Your task to perform on an android device: toggle data saver in the chrome app Image 0: 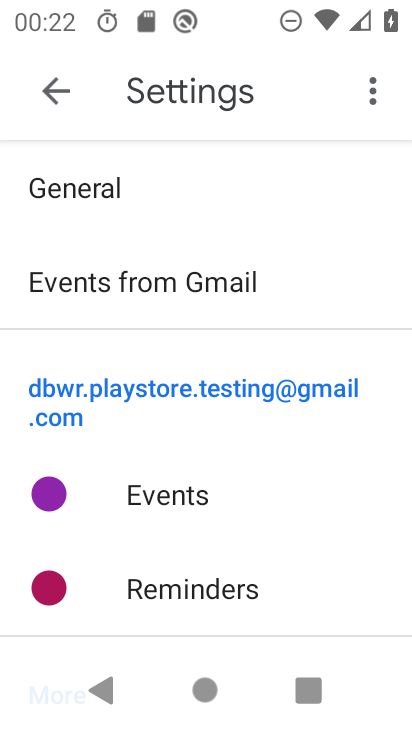
Step 0: press home button
Your task to perform on an android device: toggle data saver in the chrome app Image 1: 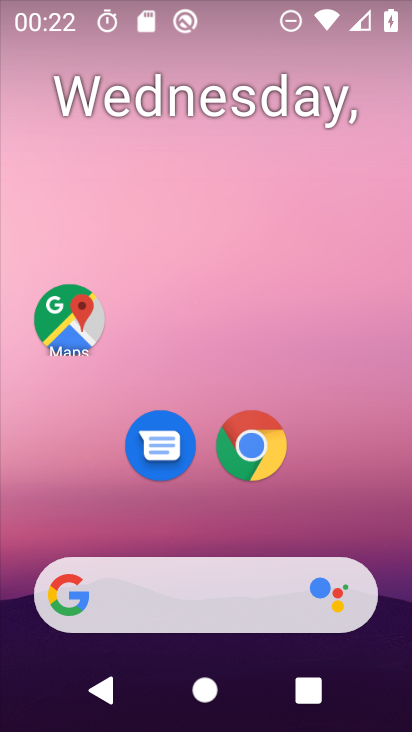
Step 1: click (254, 439)
Your task to perform on an android device: toggle data saver in the chrome app Image 2: 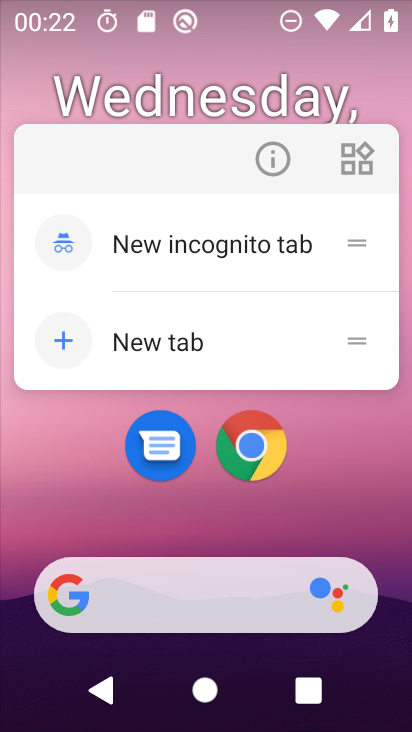
Step 2: click (211, 422)
Your task to perform on an android device: toggle data saver in the chrome app Image 3: 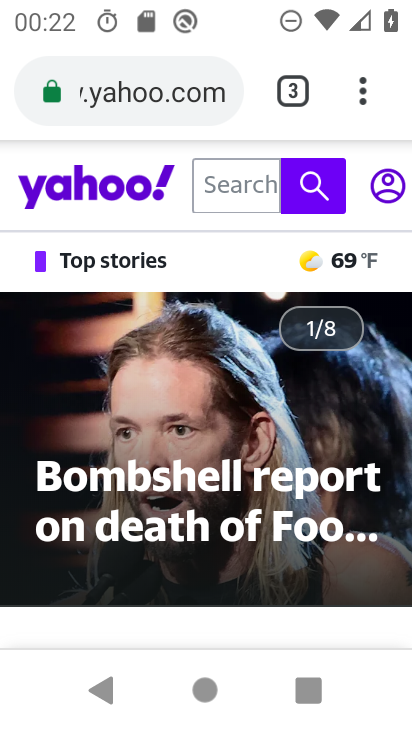
Step 3: click (375, 81)
Your task to perform on an android device: toggle data saver in the chrome app Image 4: 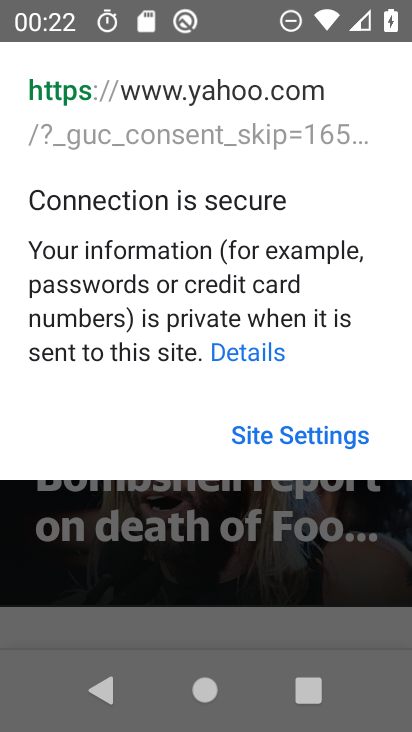
Step 4: press back button
Your task to perform on an android device: toggle data saver in the chrome app Image 5: 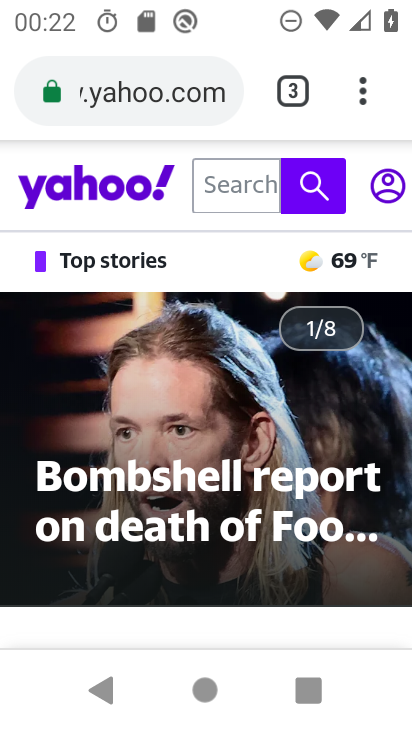
Step 5: click (375, 108)
Your task to perform on an android device: toggle data saver in the chrome app Image 6: 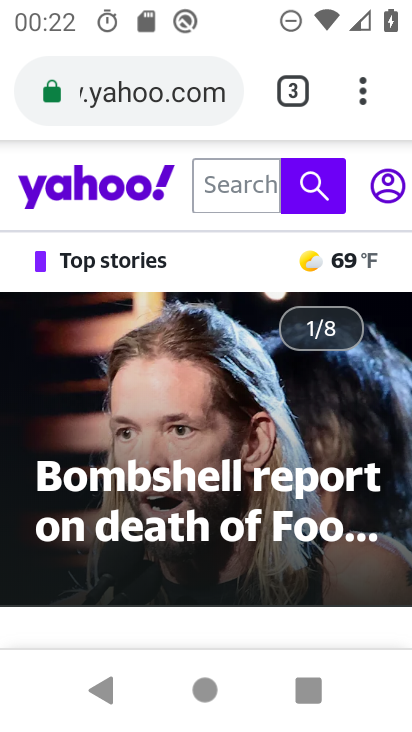
Step 6: click (373, 123)
Your task to perform on an android device: toggle data saver in the chrome app Image 7: 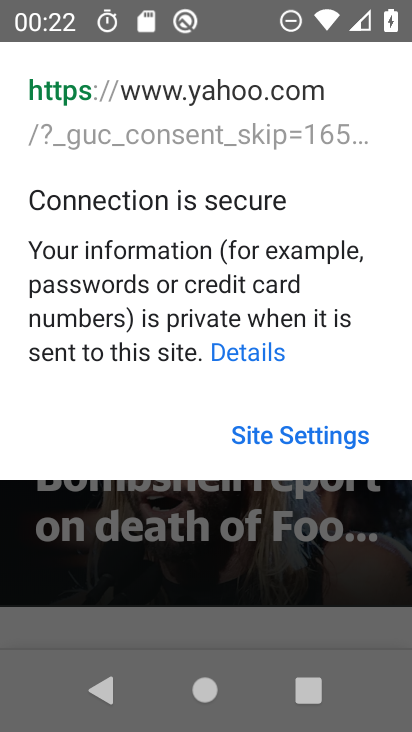
Step 7: press back button
Your task to perform on an android device: toggle data saver in the chrome app Image 8: 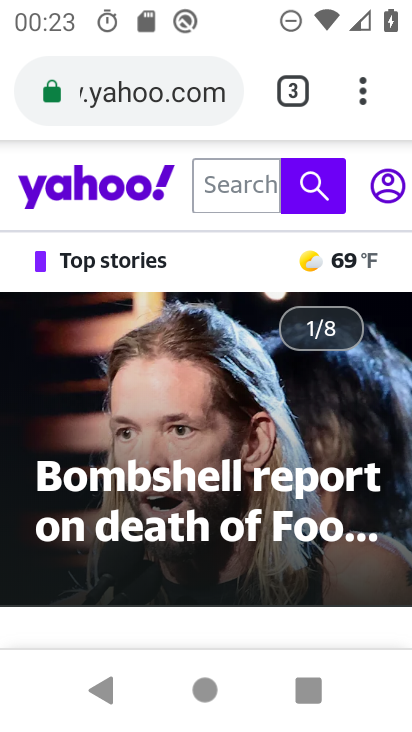
Step 8: click (360, 90)
Your task to perform on an android device: toggle data saver in the chrome app Image 9: 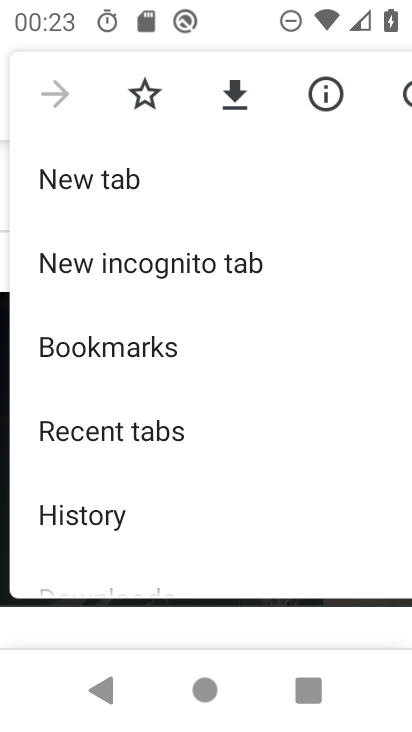
Step 9: drag from (228, 474) to (327, 86)
Your task to perform on an android device: toggle data saver in the chrome app Image 10: 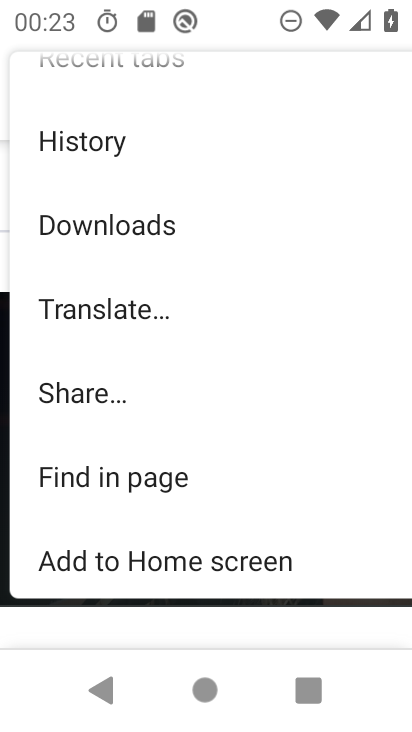
Step 10: drag from (225, 503) to (351, 114)
Your task to perform on an android device: toggle data saver in the chrome app Image 11: 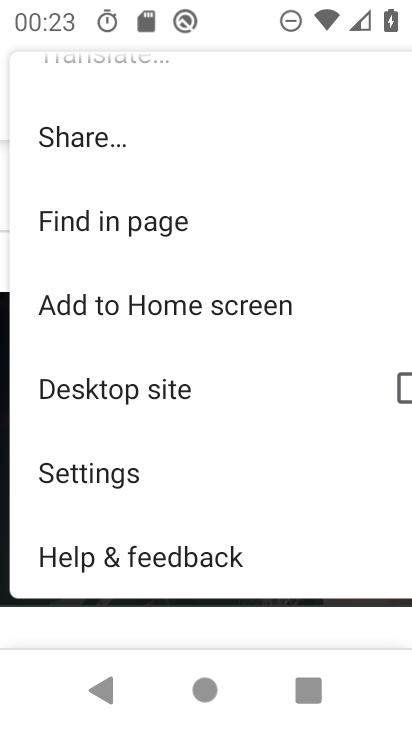
Step 11: click (189, 462)
Your task to perform on an android device: toggle data saver in the chrome app Image 12: 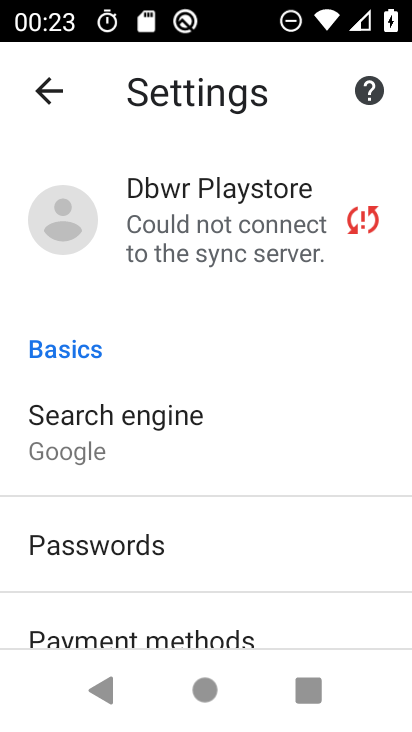
Step 12: drag from (195, 577) to (290, 160)
Your task to perform on an android device: toggle data saver in the chrome app Image 13: 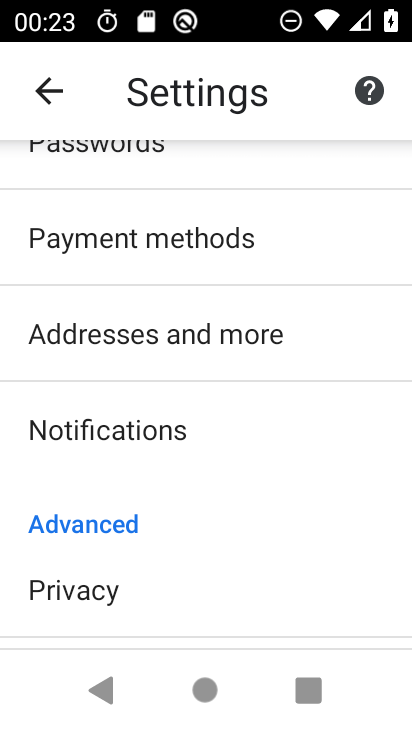
Step 13: drag from (267, 496) to (383, 212)
Your task to perform on an android device: toggle data saver in the chrome app Image 14: 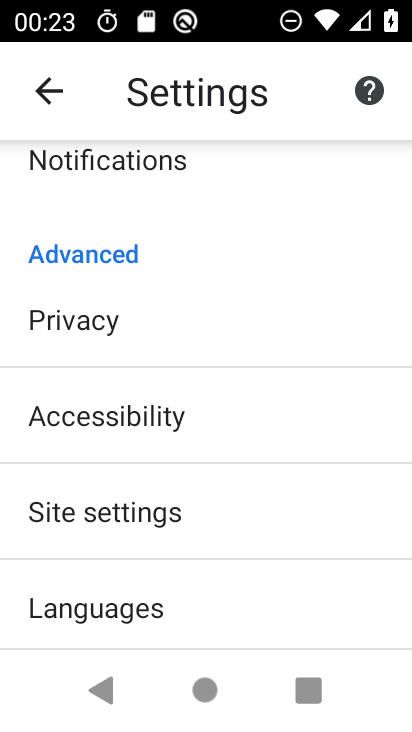
Step 14: drag from (220, 501) to (324, 278)
Your task to perform on an android device: toggle data saver in the chrome app Image 15: 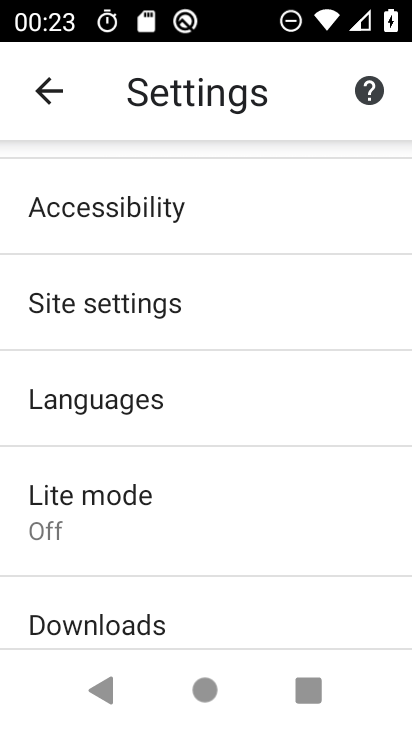
Step 15: click (151, 503)
Your task to perform on an android device: toggle data saver in the chrome app Image 16: 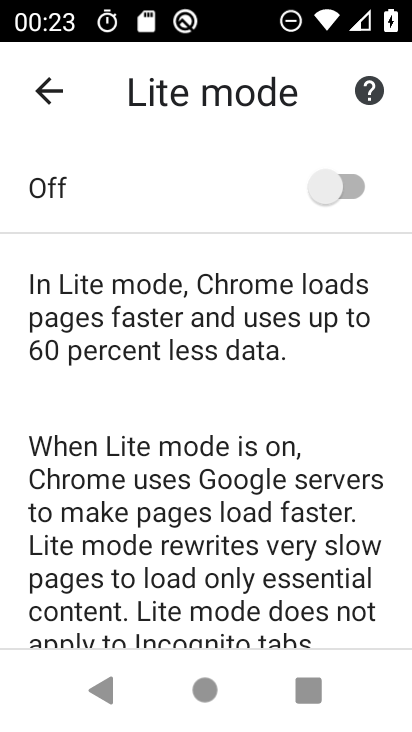
Step 16: click (354, 188)
Your task to perform on an android device: toggle data saver in the chrome app Image 17: 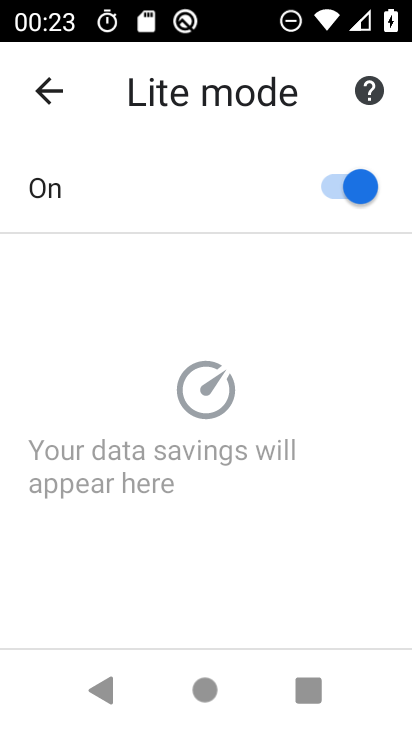
Step 17: task complete